Your task to perform on an android device: turn pop-ups on in chrome Image 0: 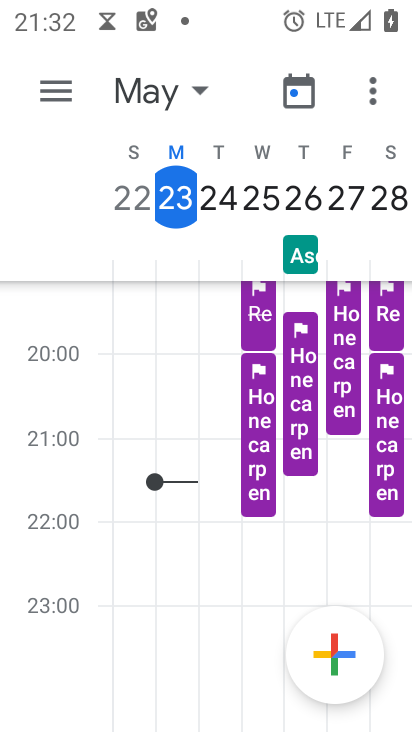
Step 0: press home button
Your task to perform on an android device: turn pop-ups on in chrome Image 1: 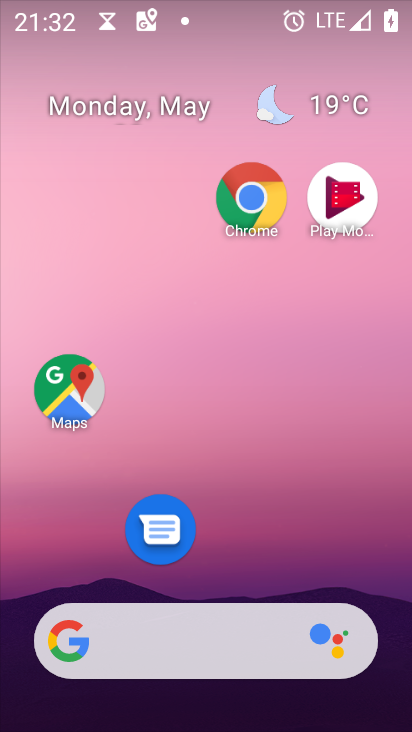
Step 1: click (247, 204)
Your task to perform on an android device: turn pop-ups on in chrome Image 2: 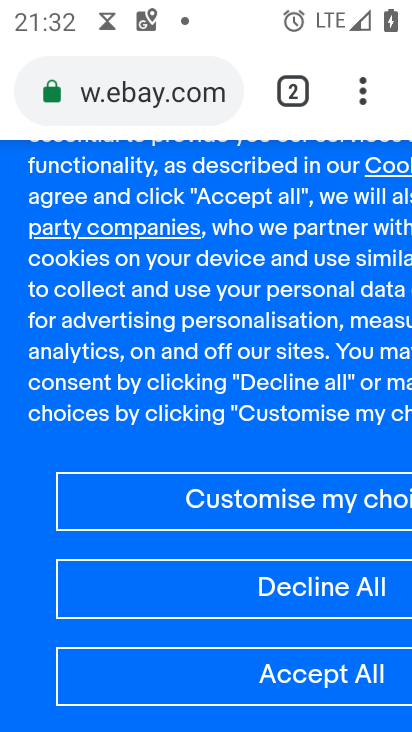
Step 2: click (362, 103)
Your task to perform on an android device: turn pop-ups on in chrome Image 3: 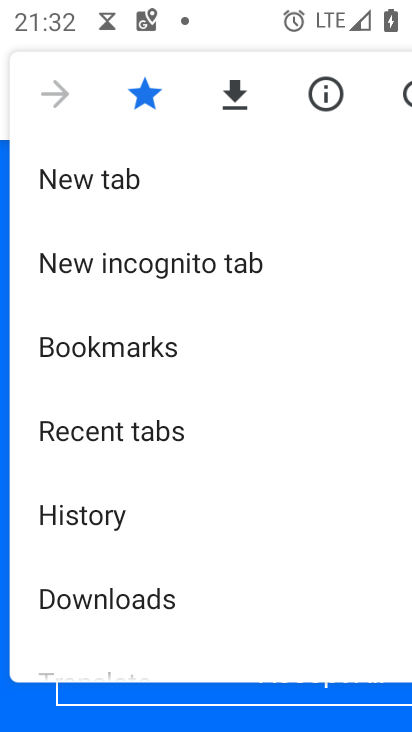
Step 3: drag from (142, 554) to (132, 164)
Your task to perform on an android device: turn pop-ups on in chrome Image 4: 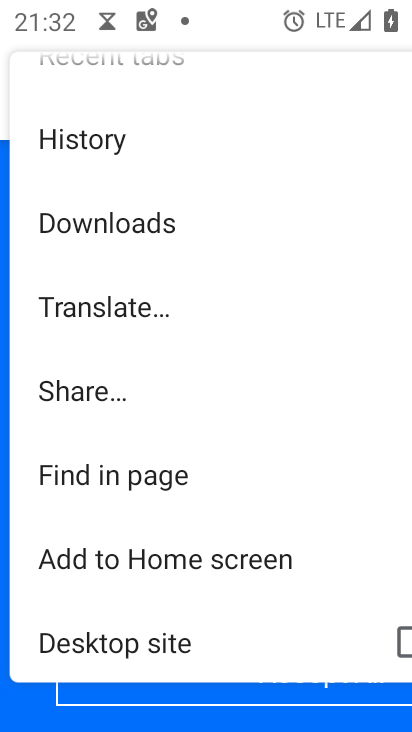
Step 4: drag from (125, 650) to (105, 331)
Your task to perform on an android device: turn pop-ups on in chrome Image 5: 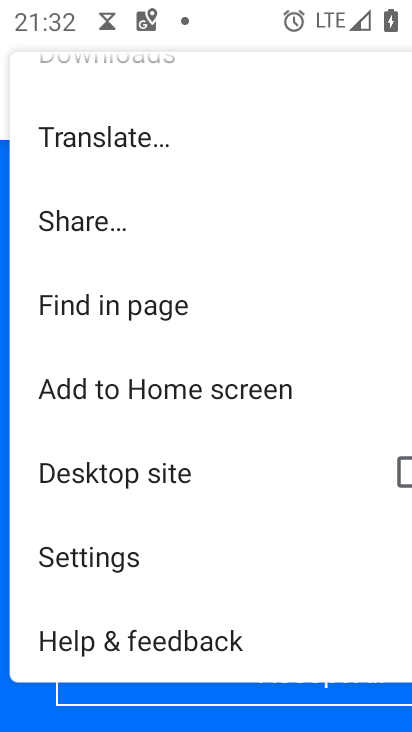
Step 5: click (118, 574)
Your task to perform on an android device: turn pop-ups on in chrome Image 6: 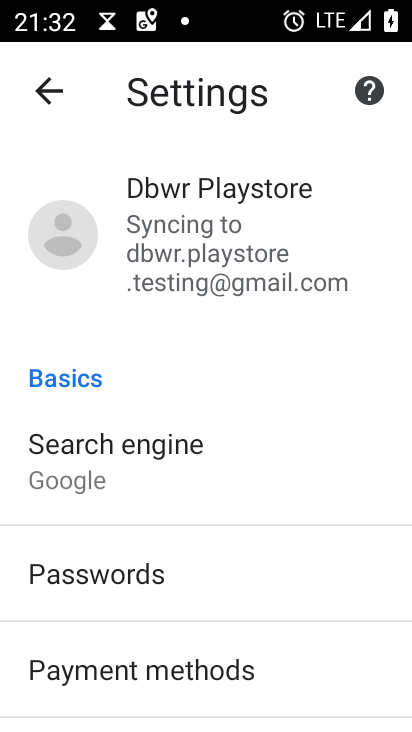
Step 6: drag from (140, 619) to (111, 224)
Your task to perform on an android device: turn pop-ups on in chrome Image 7: 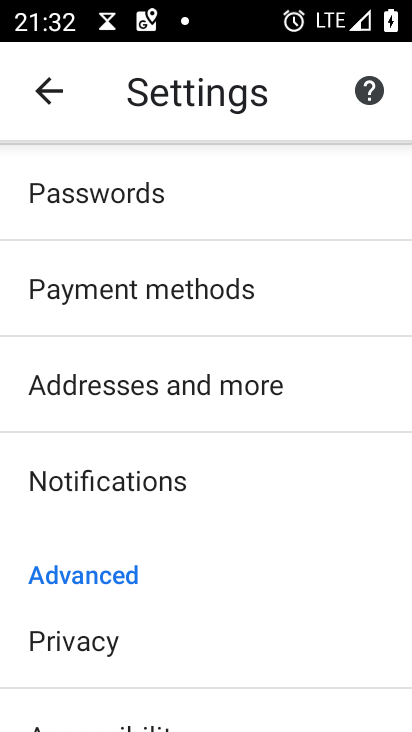
Step 7: drag from (193, 659) to (154, 326)
Your task to perform on an android device: turn pop-ups on in chrome Image 8: 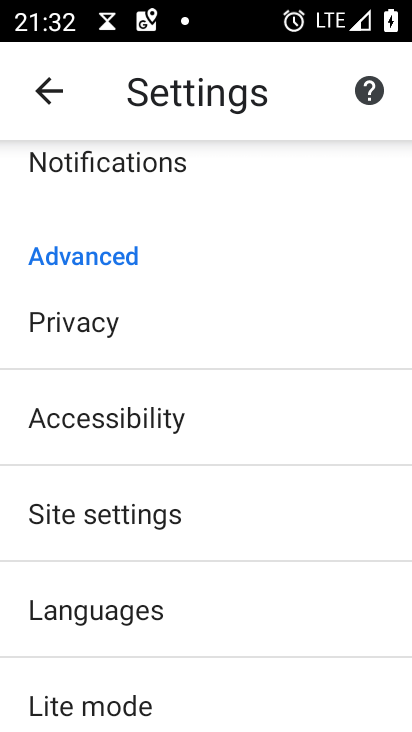
Step 8: click (138, 524)
Your task to perform on an android device: turn pop-ups on in chrome Image 9: 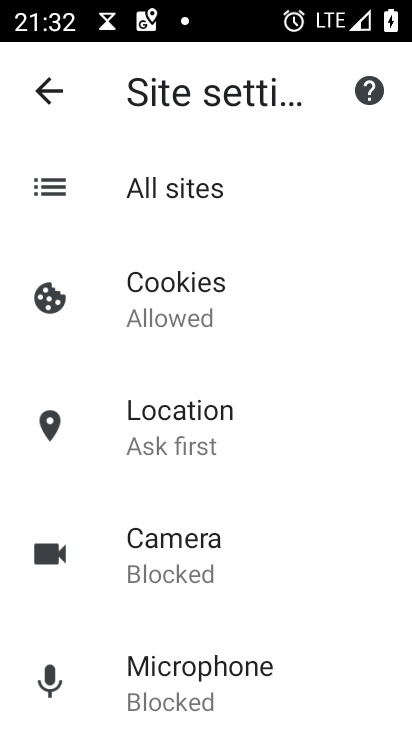
Step 9: drag from (203, 621) to (201, 217)
Your task to perform on an android device: turn pop-ups on in chrome Image 10: 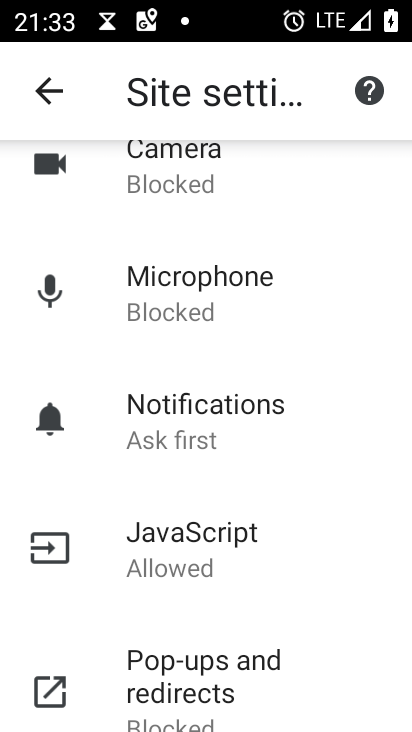
Step 10: click (208, 700)
Your task to perform on an android device: turn pop-ups on in chrome Image 11: 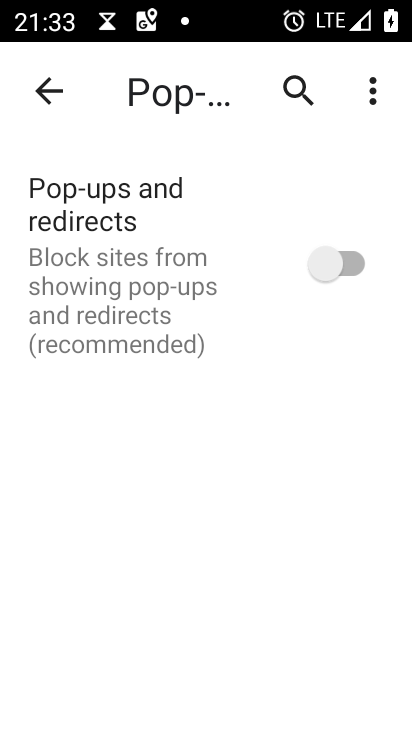
Step 11: click (355, 267)
Your task to perform on an android device: turn pop-ups on in chrome Image 12: 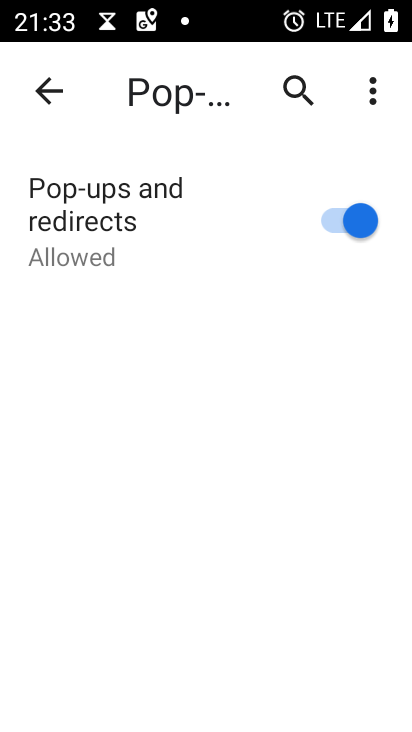
Step 12: task complete